Your task to perform on an android device: add a label to a message in the gmail app Image 0: 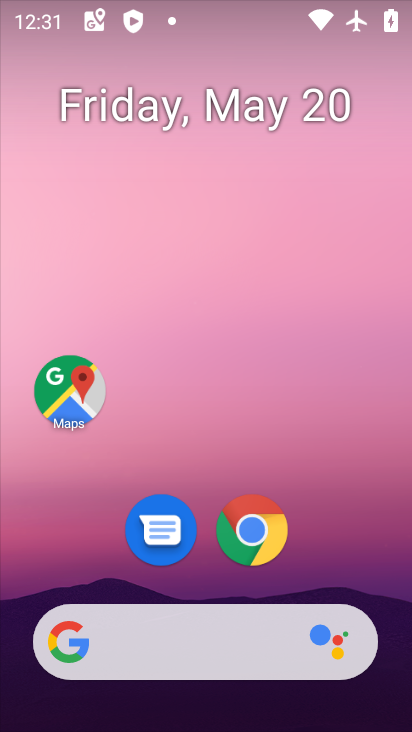
Step 0: drag from (185, 701) to (186, 295)
Your task to perform on an android device: add a label to a message in the gmail app Image 1: 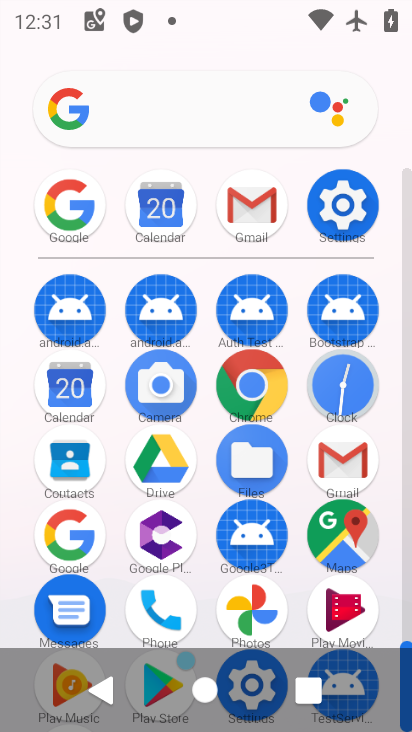
Step 1: click (253, 215)
Your task to perform on an android device: add a label to a message in the gmail app Image 2: 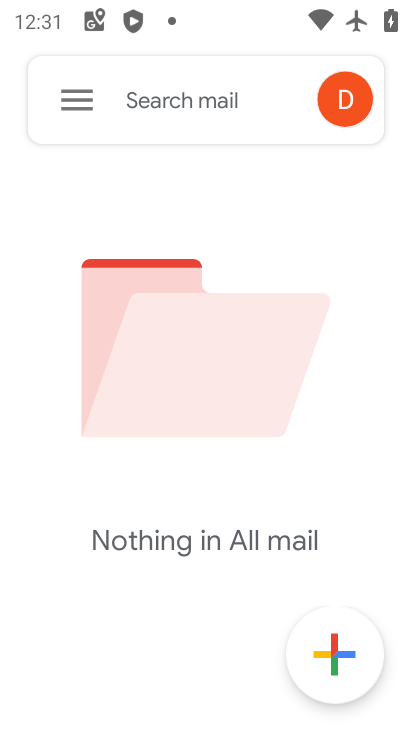
Step 2: task complete